Your task to perform on an android device: Go to wifi settings Image 0: 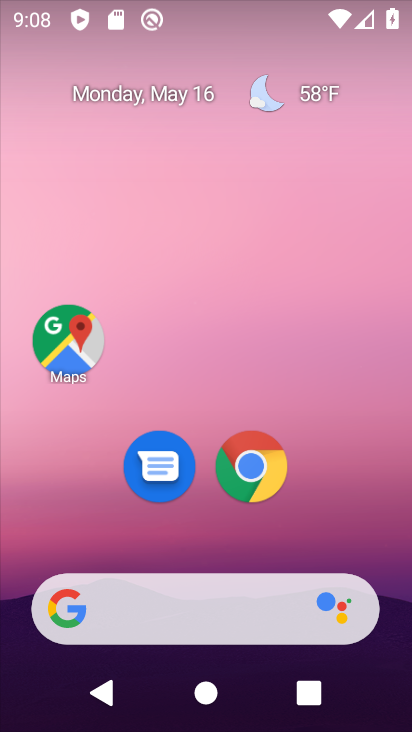
Step 0: drag from (321, 528) to (306, 31)
Your task to perform on an android device: Go to wifi settings Image 1: 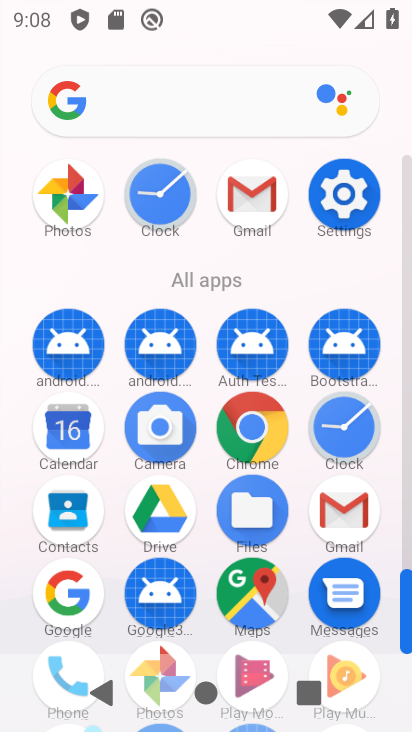
Step 1: click (335, 196)
Your task to perform on an android device: Go to wifi settings Image 2: 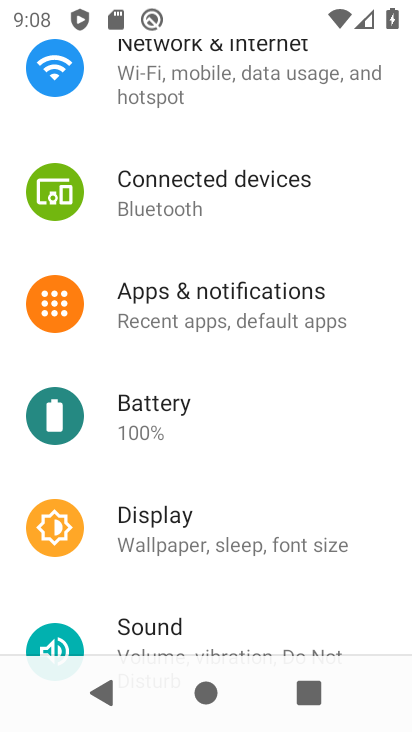
Step 2: drag from (228, 209) to (234, 452)
Your task to perform on an android device: Go to wifi settings Image 3: 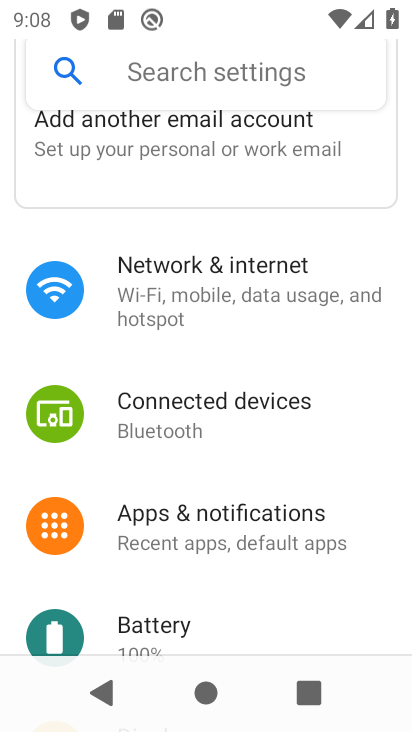
Step 3: click (193, 349)
Your task to perform on an android device: Go to wifi settings Image 4: 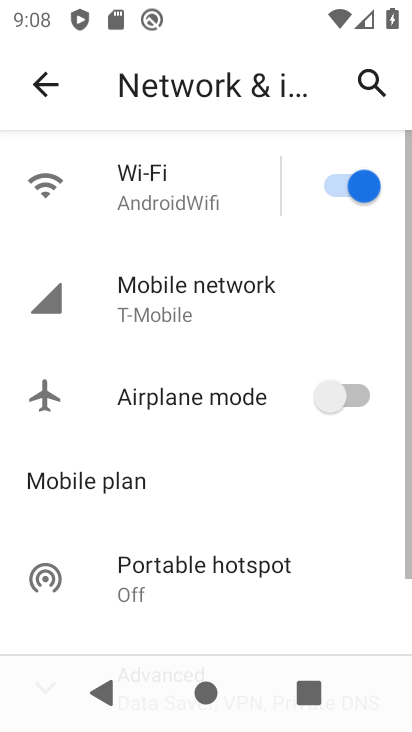
Step 4: click (117, 199)
Your task to perform on an android device: Go to wifi settings Image 5: 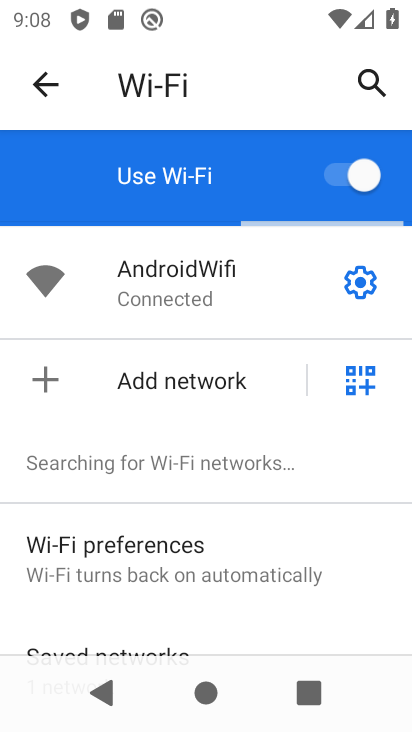
Step 5: task complete